Your task to perform on an android device: snooze an email in the gmail app Image 0: 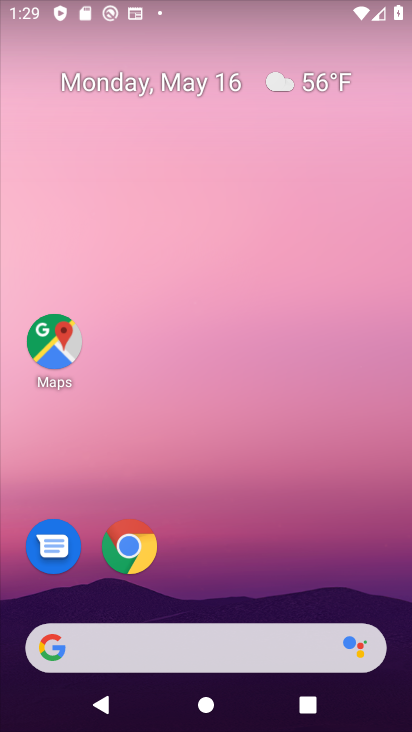
Step 0: press home button
Your task to perform on an android device: snooze an email in the gmail app Image 1: 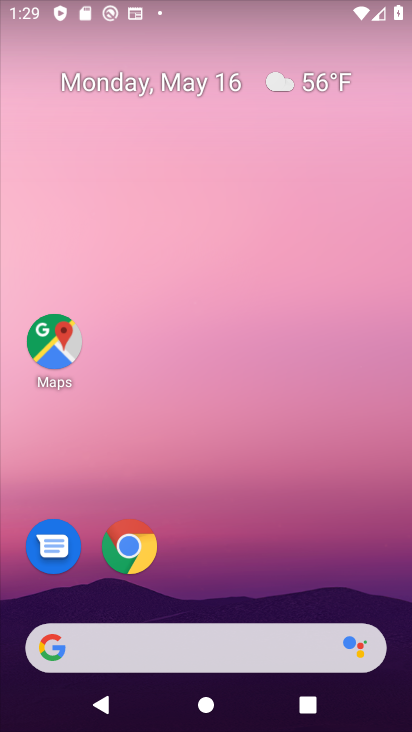
Step 1: drag from (289, 566) to (318, 102)
Your task to perform on an android device: snooze an email in the gmail app Image 2: 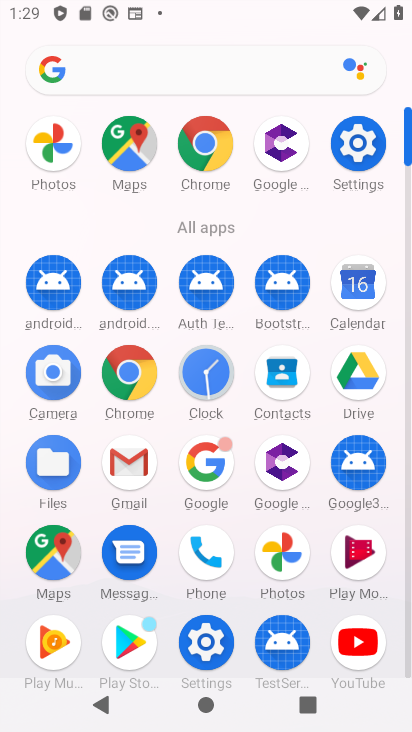
Step 2: click (127, 459)
Your task to perform on an android device: snooze an email in the gmail app Image 3: 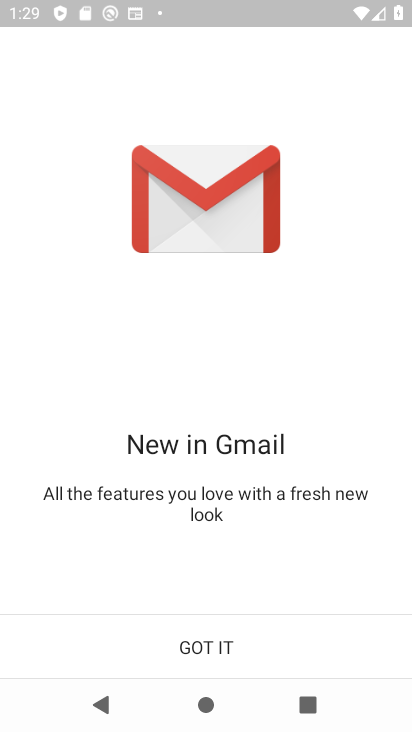
Step 3: click (217, 642)
Your task to perform on an android device: snooze an email in the gmail app Image 4: 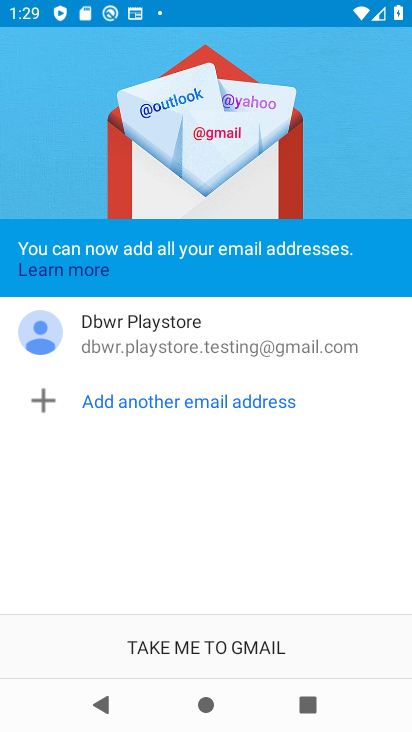
Step 4: click (213, 645)
Your task to perform on an android device: snooze an email in the gmail app Image 5: 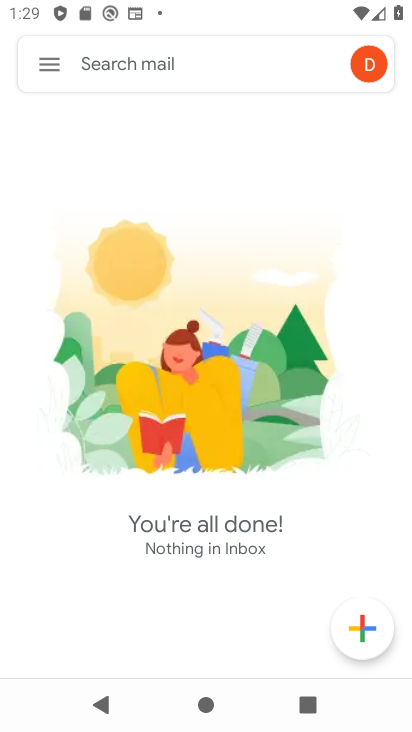
Step 5: click (52, 73)
Your task to perform on an android device: snooze an email in the gmail app Image 6: 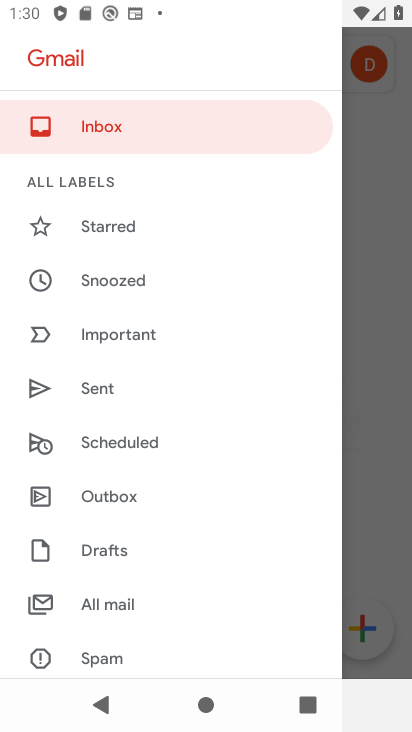
Step 6: click (126, 277)
Your task to perform on an android device: snooze an email in the gmail app Image 7: 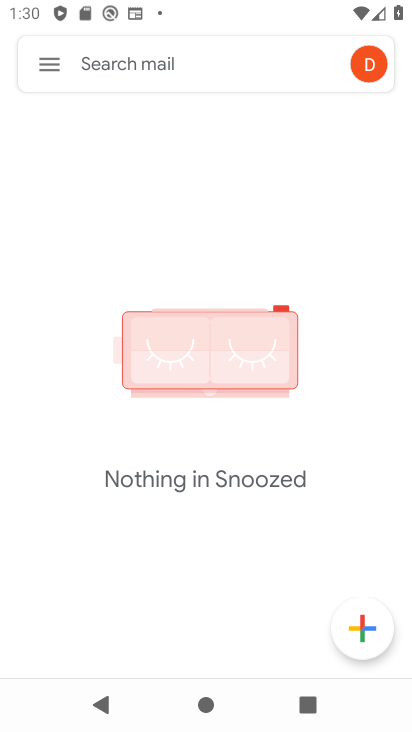
Step 7: click (125, 284)
Your task to perform on an android device: snooze an email in the gmail app Image 8: 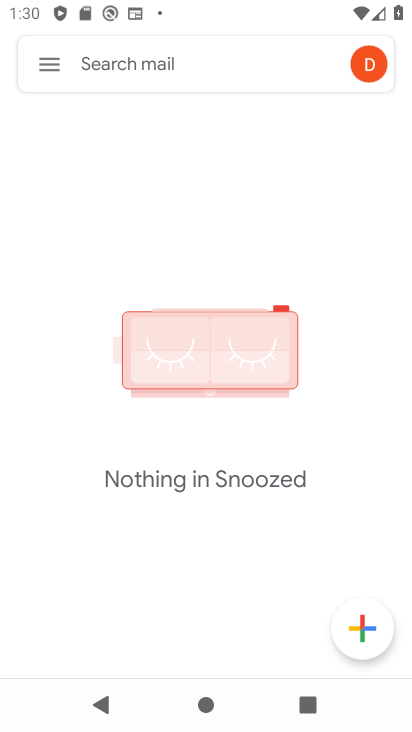
Step 8: task complete